Your task to perform on an android device: Go to display settings Image 0: 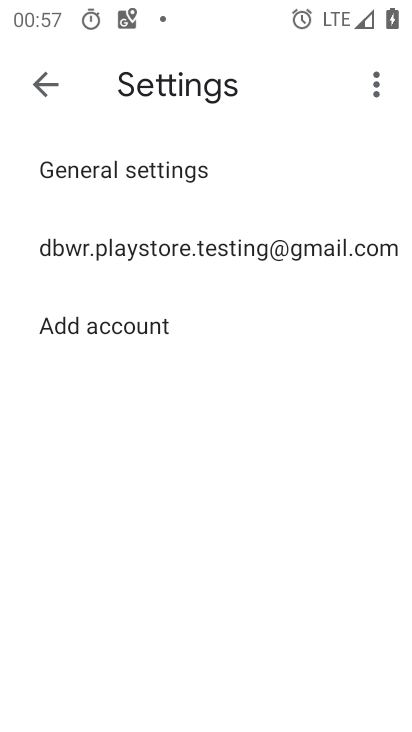
Step 0: press home button
Your task to perform on an android device: Go to display settings Image 1: 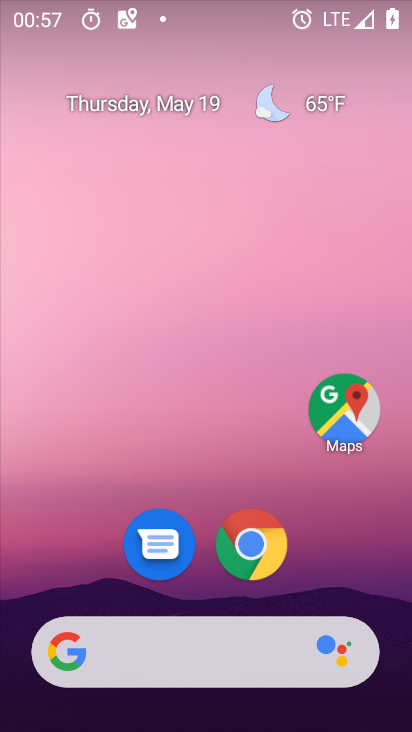
Step 1: drag from (361, 561) to (334, 101)
Your task to perform on an android device: Go to display settings Image 2: 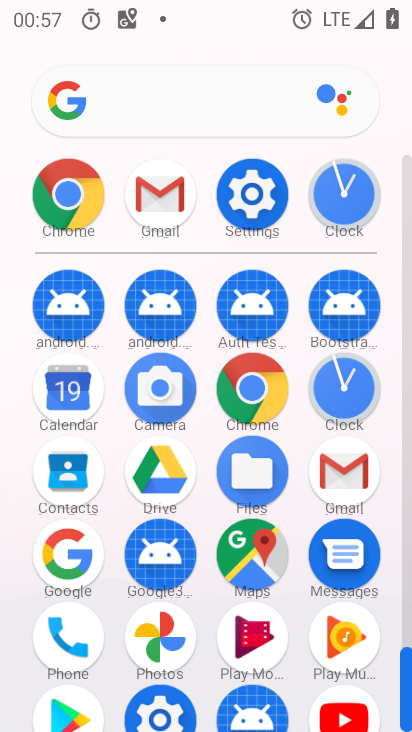
Step 2: click (260, 201)
Your task to perform on an android device: Go to display settings Image 3: 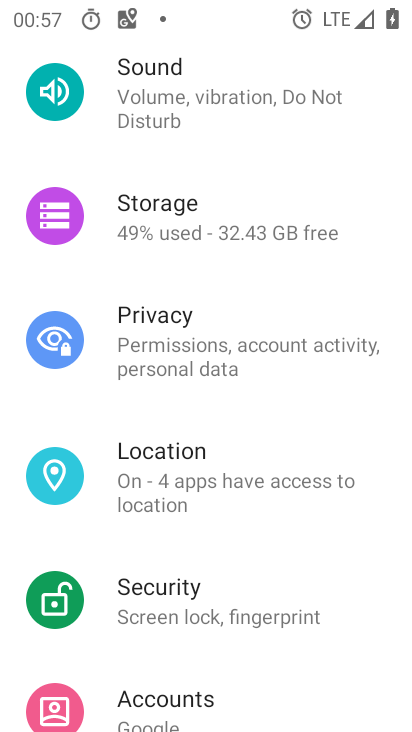
Step 3: drag from (339, 605) to (342, 347)
Your task to perform on an android device: Go to display settings Image 4: 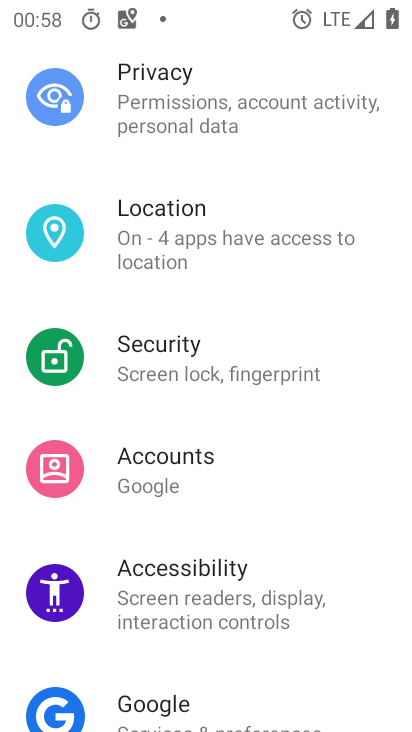
Step 4: drag from (353, 622) to (361, 417)
Your task to perform on an android device: Go to display settings Image 5: 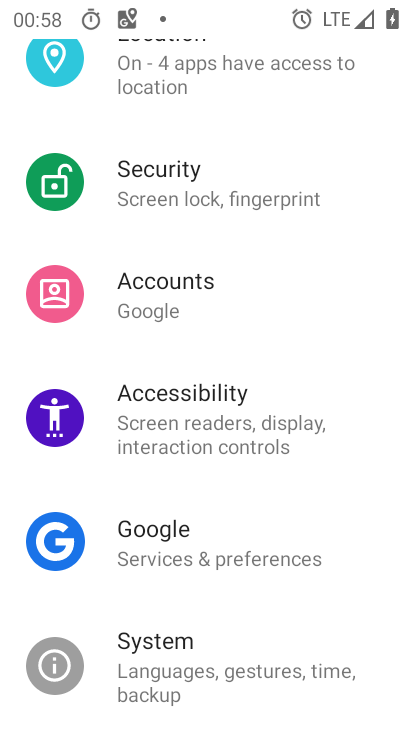
Step 5: drag from (349, 654) to (349, 434)
Your task to perform on an android device: Go to display settings Image 6: 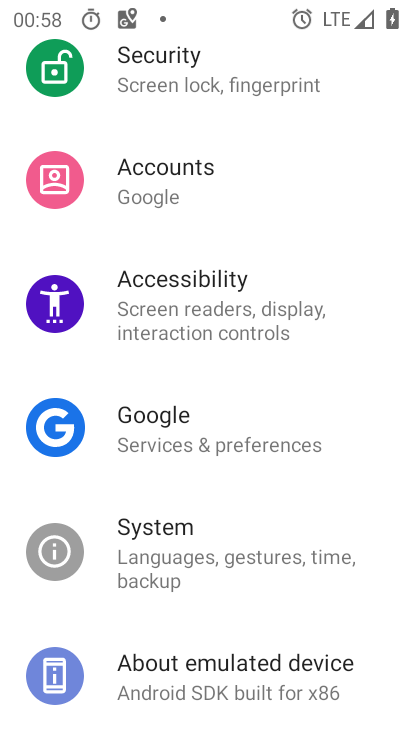
Step 6: drag from (358, 598) to (356, 441)
Your task to perform on an android device: Go to display settings Image 7: 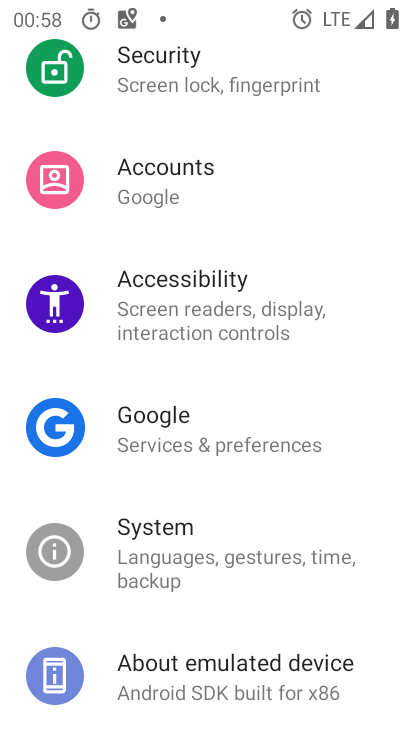
Step 7: drag from (352, 647) to (358, 470)
Your task to perform on an android device: Go to display settings Image 8: 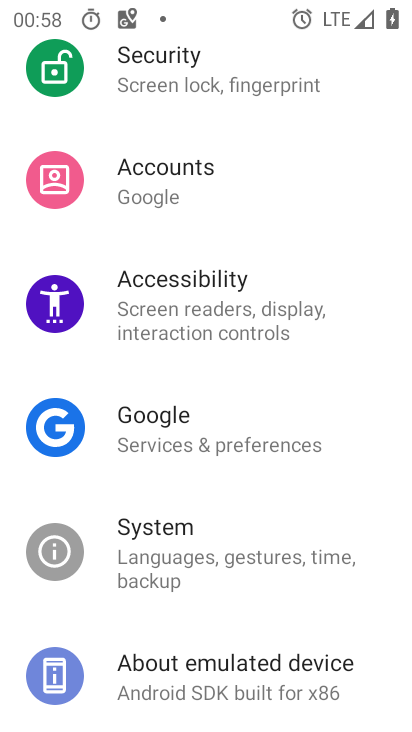
Step 8: drag from (381, 338) to (369, 580)
Your task to perform on an android device: Go to display settings Image 9: 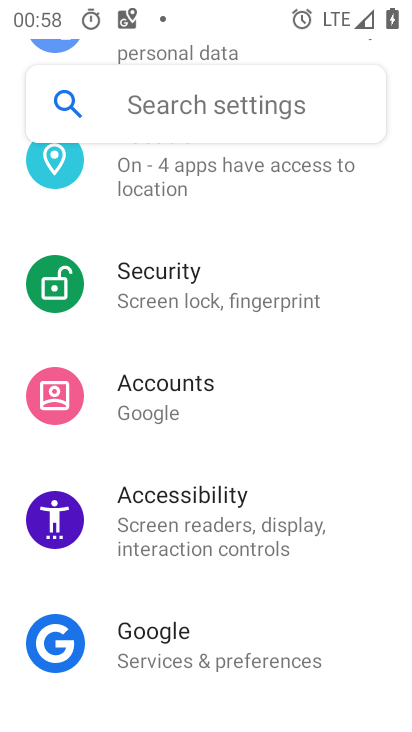
Step 9: drag from (366, 321) to (364, 382)
Your task to perform on an android device: Go to display settings Image 10: 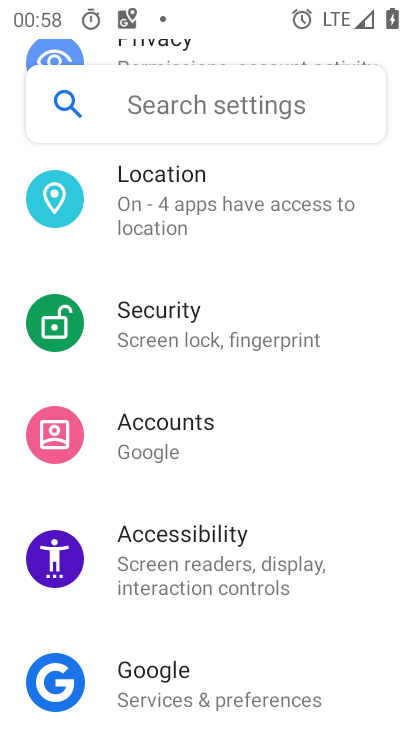
Step 10: drag from (364, 305) to (358, 500)
Your task to perform on an android device: Go to display settings Image 11: 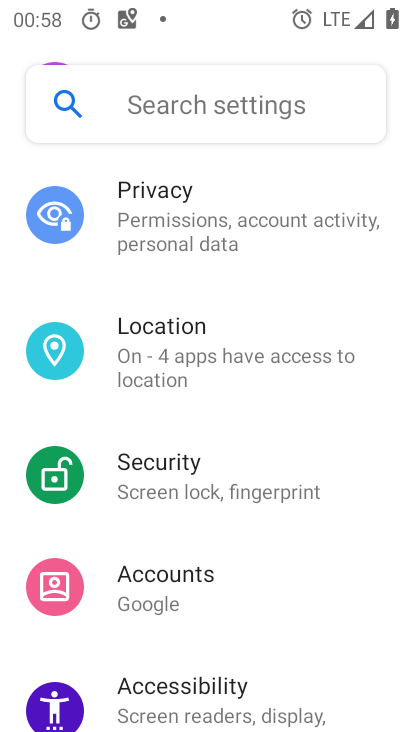
Step 11: drag from (376, 289) to (351, 483)
Your task to perform on an android device: Go to display settings Image 12: 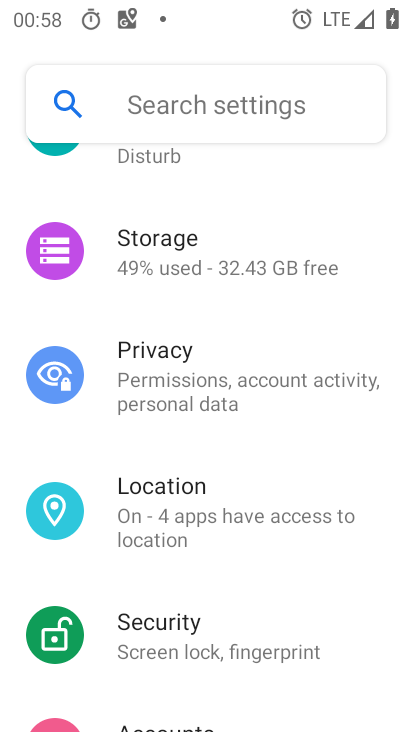
Step 12: drag from (357, 272) to (343, 442)
Your task to perform on an android device: Go to display settings Image 13: 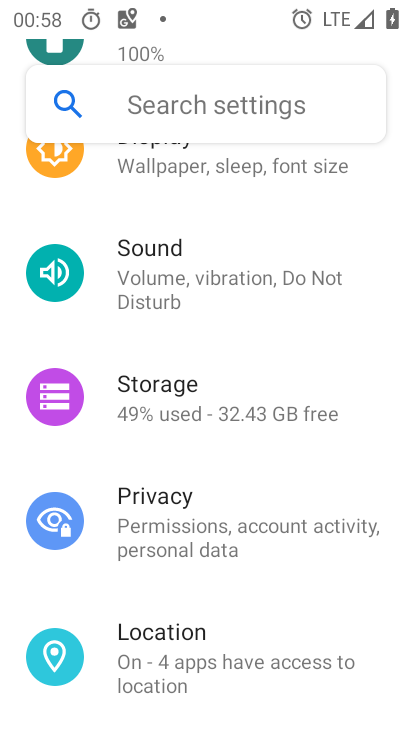
Step 13: drag from (359, 255) to (352, 433)
Your task to perform on an android device: Go to display settings Image 14: 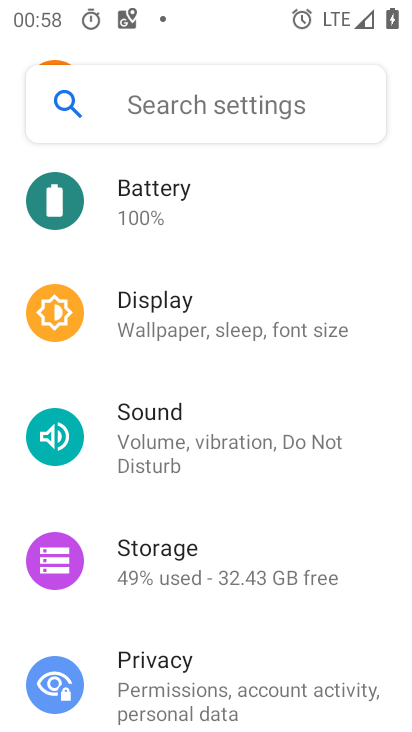
Step 14: drag from (362, 284) to (361, 443)
Your task to perform on an android device: Go to display settings Image 15: 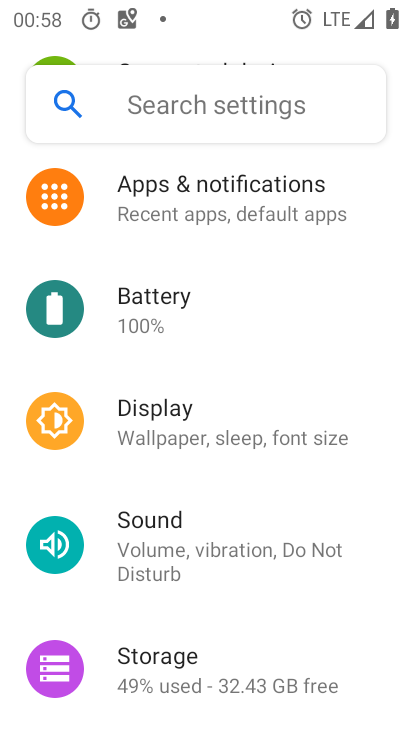
Step 15: click (252, 434)
Your task to perform on an android device: Go to display settings Image 16: 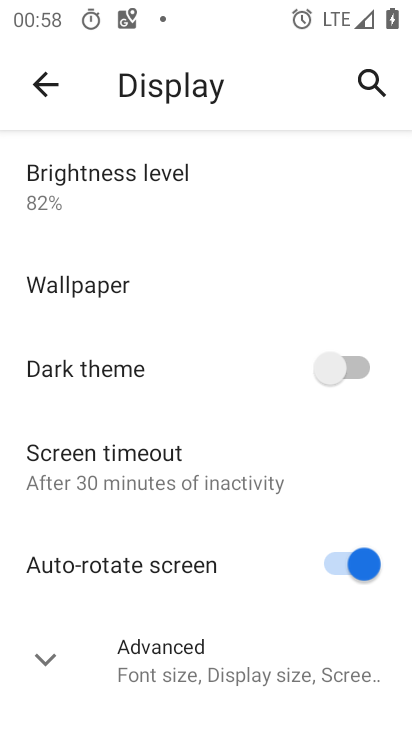
Step 16: task complete